Your task to perform on an android device: change the clock style Image 0: 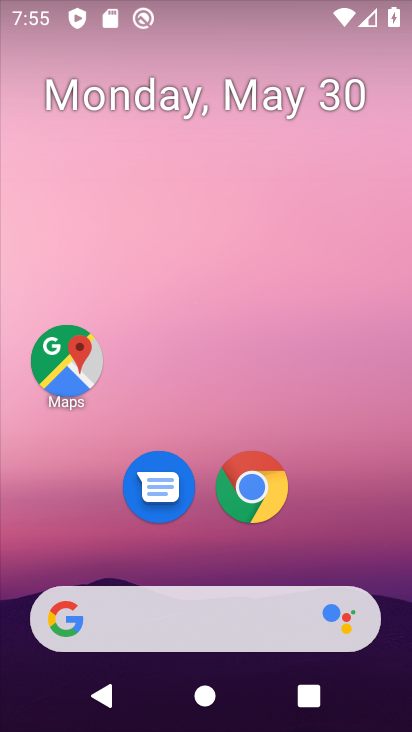
Step 0: drag from (369, 593) to (296, 208)
Your task to perform on an android device: change the clock style Image 1: 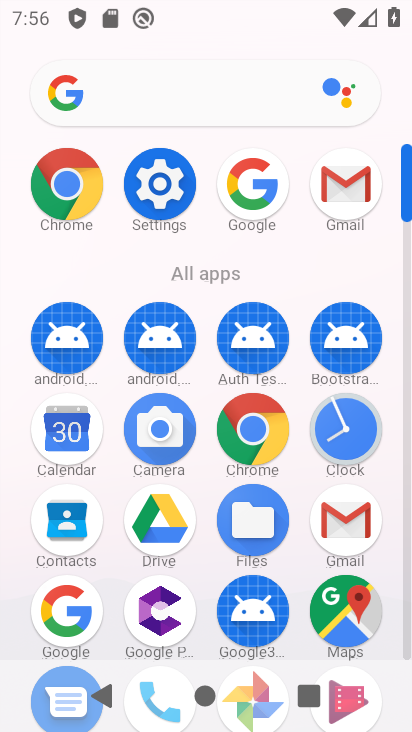
Step 1: click (342, 402)
Your task to perform on an android device: change the clock style Image 2: 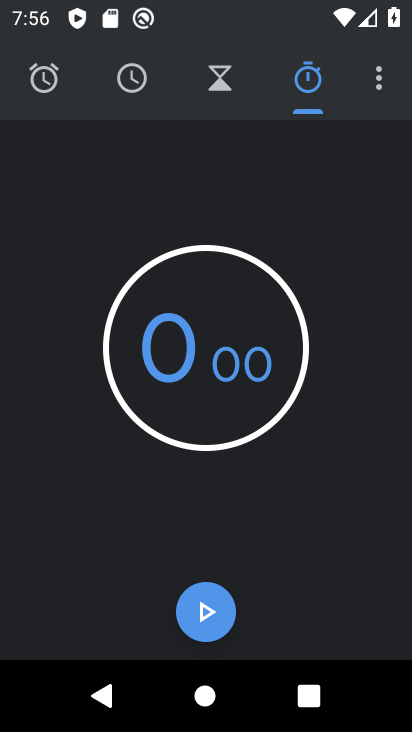
Step 2: click (359, 76)
Your task to perform on an android device: change the clock style Image 3: 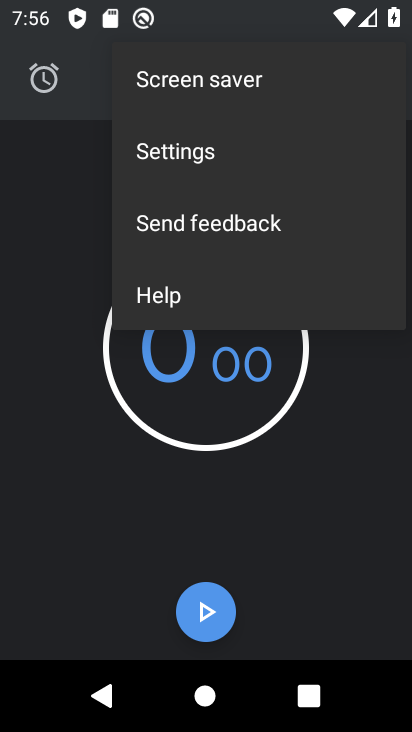
Step 3: click (206, 168)
Your task to perform on an android device: change the clock style Image 4: 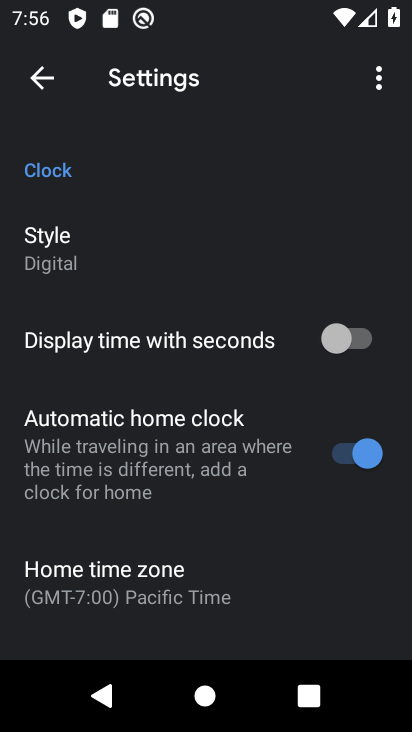
Step 4: click (93, 280)
Your task to perform on an android device: change the clock style Image 5: 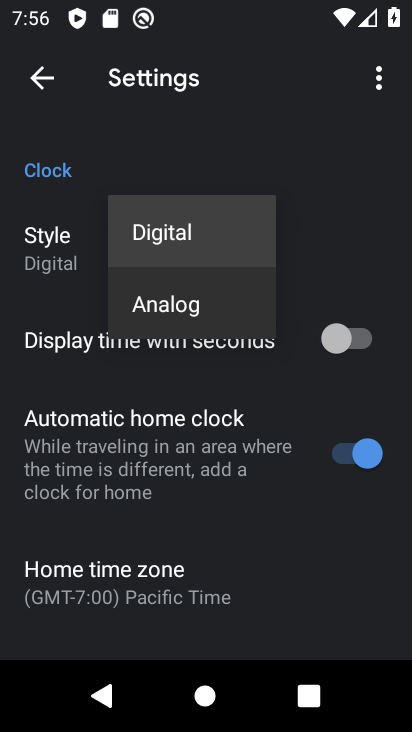
Step 5: click (183, 296)
Your task to perform on an android device: change the clock style Image 6: 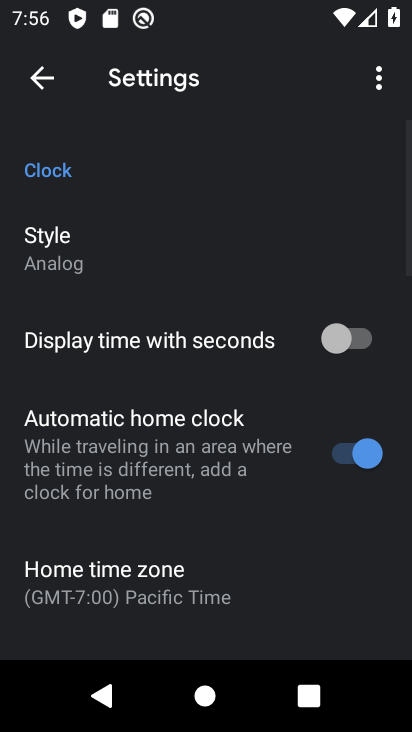
Step 6: task complete